Your task to perform on an android device: Go to internet settings Image 0: 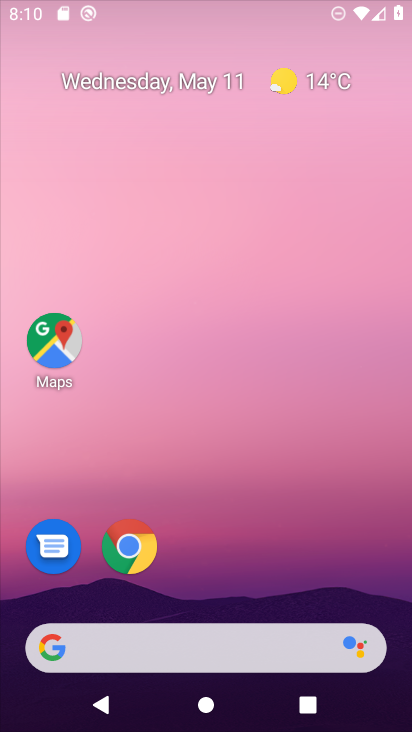
Step 0: drag from (223, 630) to (193, 287)
Your task to perform on an android device: Go to internet settings Image 1: 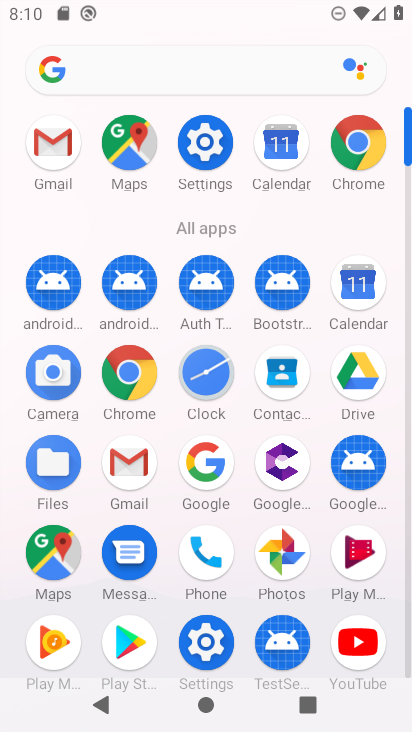
Step 1: click (208, 154)
Your task to perform on an android device: Go to internet settings Image 2: 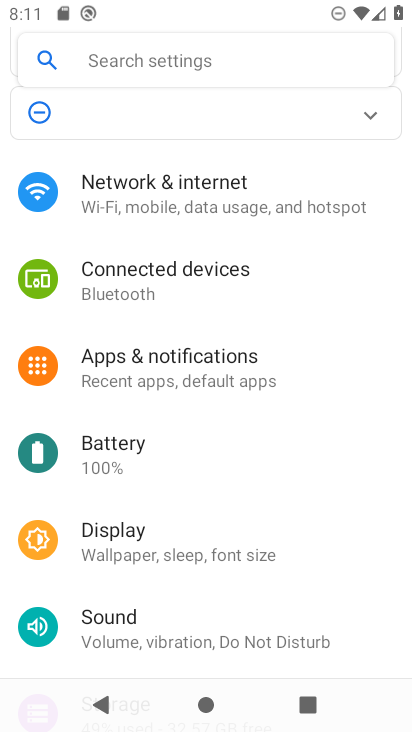
Step 2: click (212, 217)
Your task to perform on an android device: Go to internet settings Image 3: 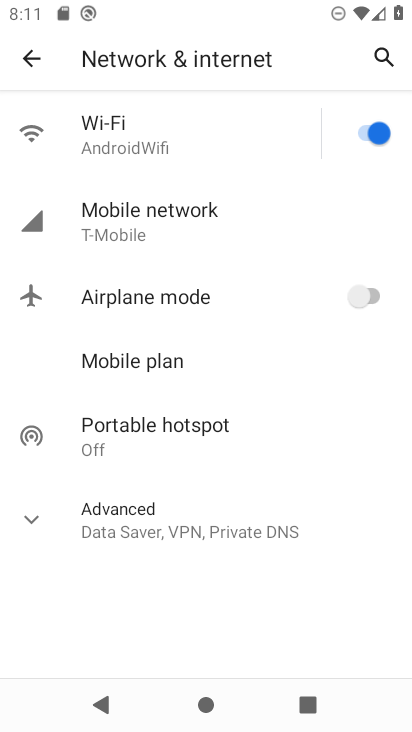
Step 3: task complete